Your task to perform on an android device: Go to eBay Image 0: 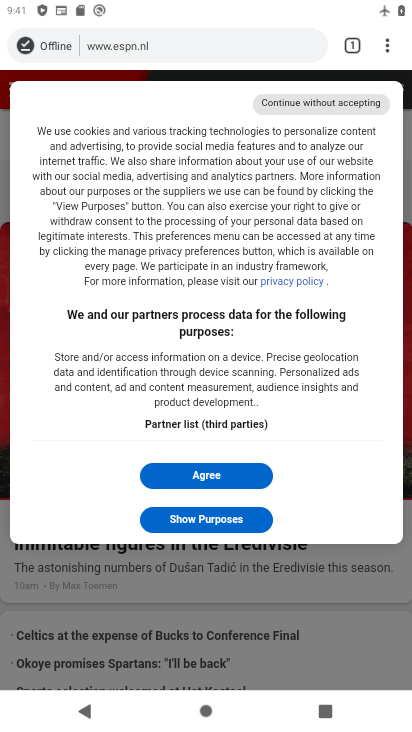
Step 0: click (214, 471)
Your task to perform on an android device: Go to eBay Image 1: 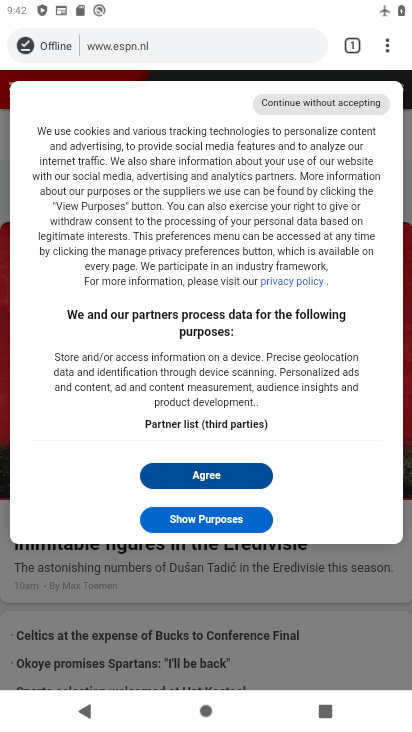
Step 1: click (175, 473)
Your task to perform on an android device: Go to eBay Image 2: 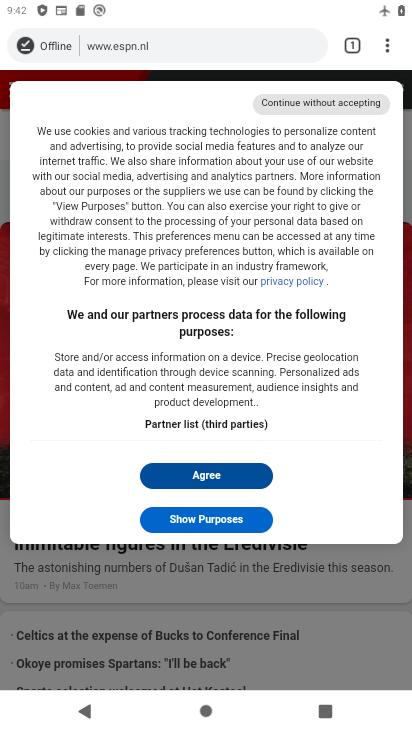
Step 2: click (179, 473)
Your task to perform on an android device: Go to eBay Image 3: 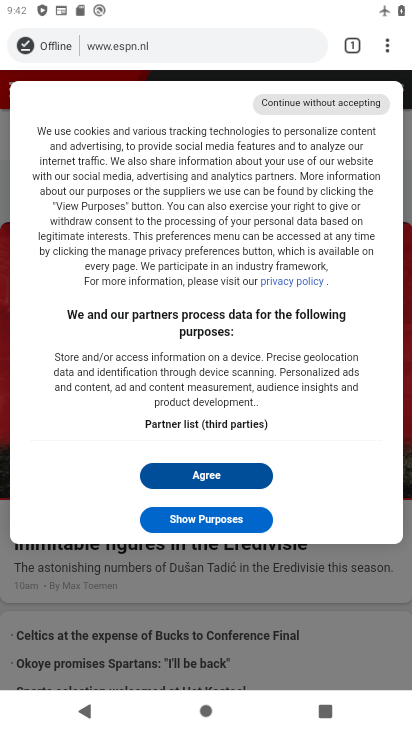
Step 3: click (191, 473)
Your task to perform on an android device: Go to eBay Image 4: 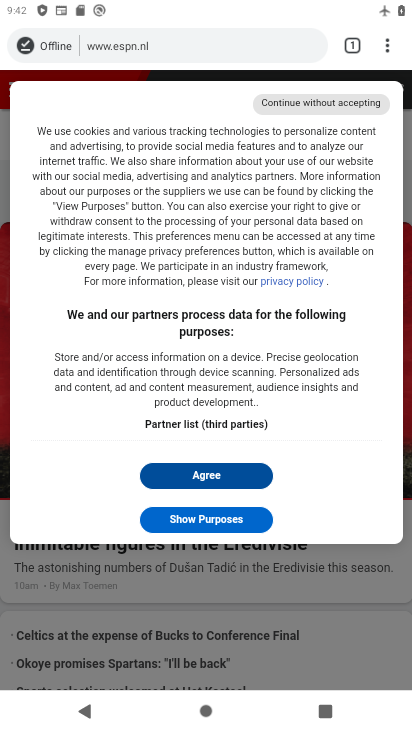
Step 4: click (191, 473)
Your task to perform on an android device: Go to eBay Image 5: 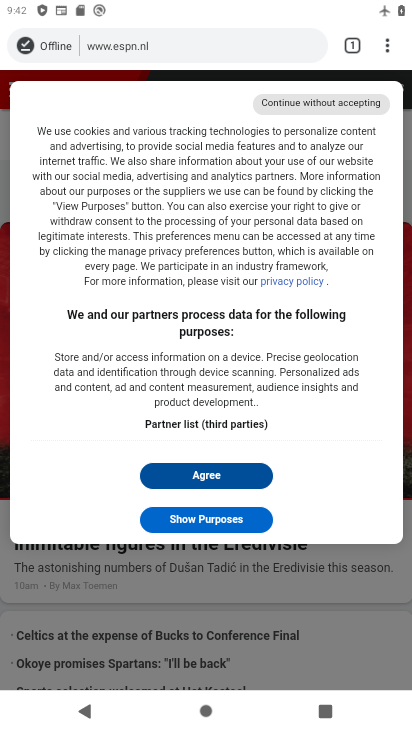
Step 5: click (391, 39)
Your task to perform on an android device: Go to eBay Image 6: 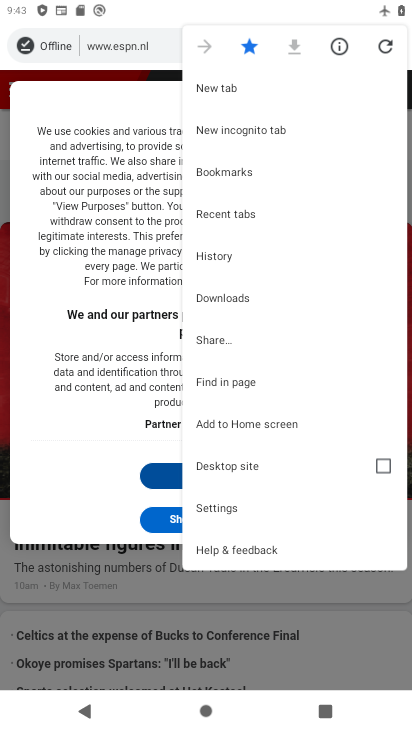
Step 6: click (220, 82)
Your task to perform on an android device: Go to eBay Image 7: 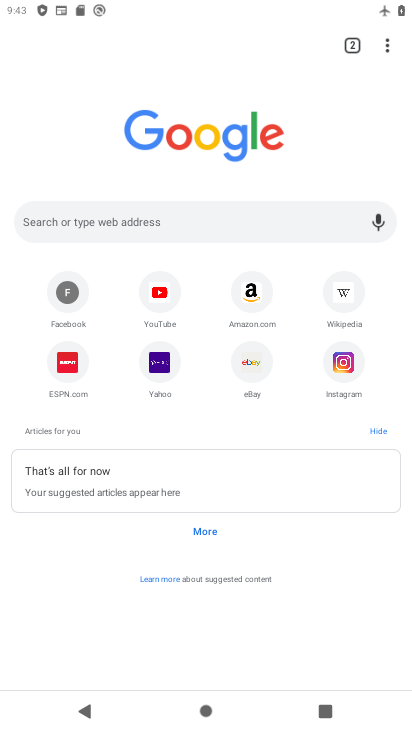
Step 7: click (139, 212)
Your task to perform on an android device: Go to eBay Image 8: 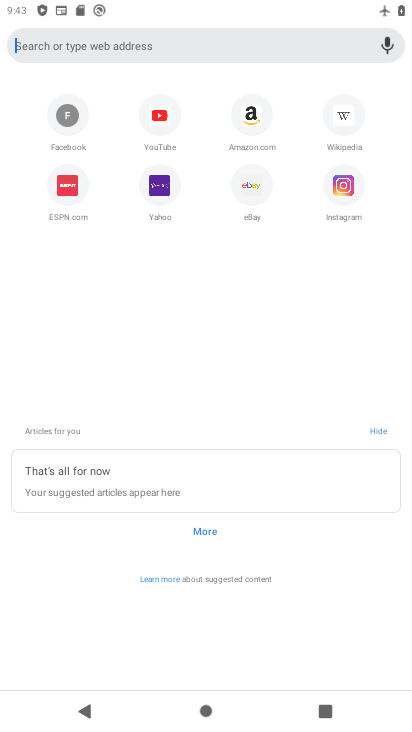
Step 8: click (142, 216)
Your task to perform on an android device: Go to eBay Image 9: 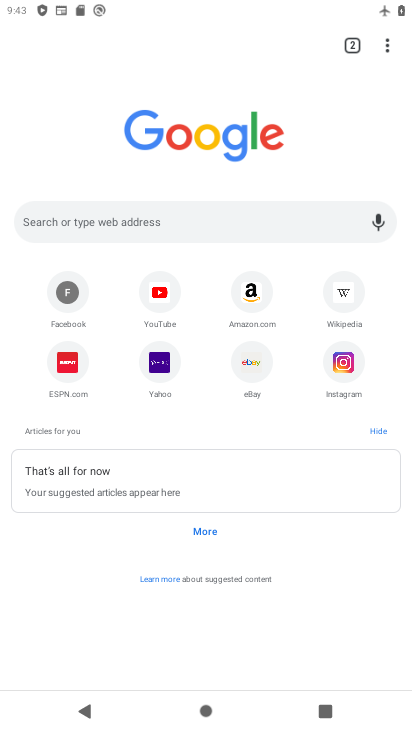
Step 9: click (43, 216)
Your task to perform on an android device: Go to eBay Image 10: 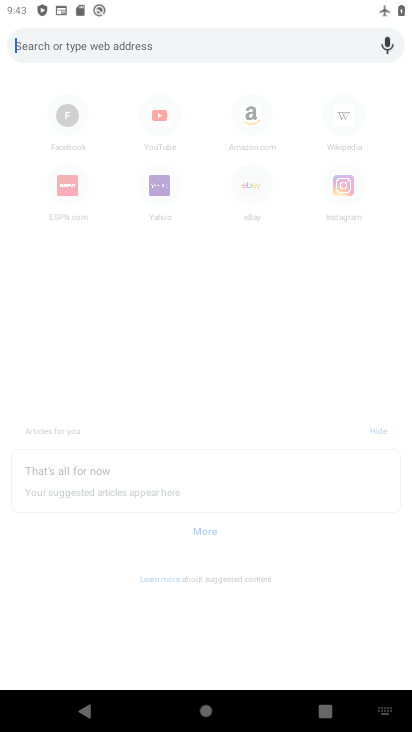
Step 10: type "ebay"
Your task to perform on an android device: Go to eBay Image 11: 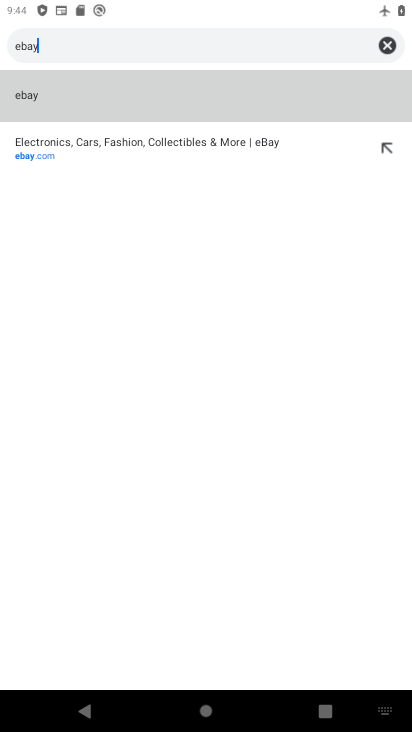
Step 11: click (172, 91)
Your task to perform on an android device: Go to eBay Image 12: 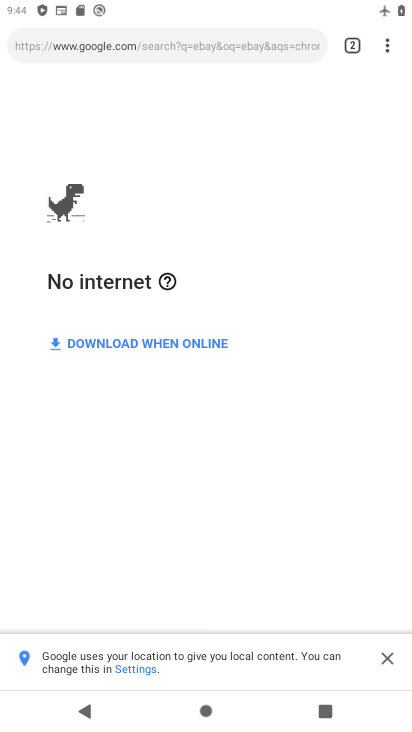
Step 12: task complete